Your task to perform on an android device: Open Android settings Image 0: 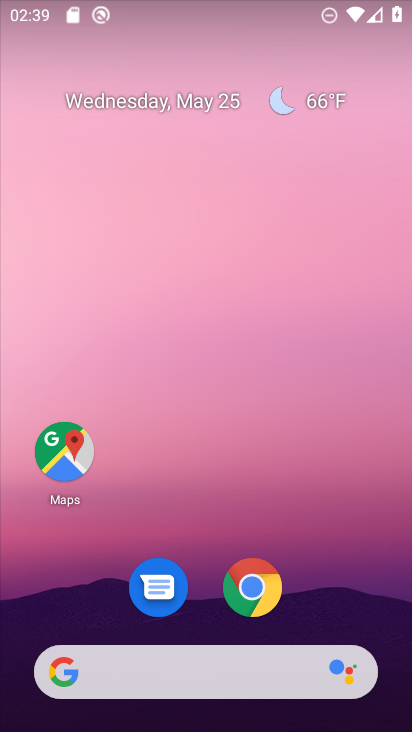
Step 0: drag from (386, 609) to (356, 224)
Your task to perform on an android device: Open Android settings Image 1: 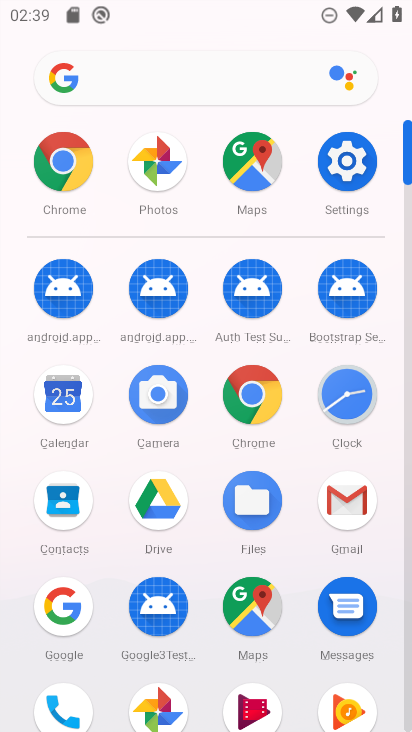
Step 1: click (354, 186)
Your task to perform on an android device: Open Android settings Image 2: 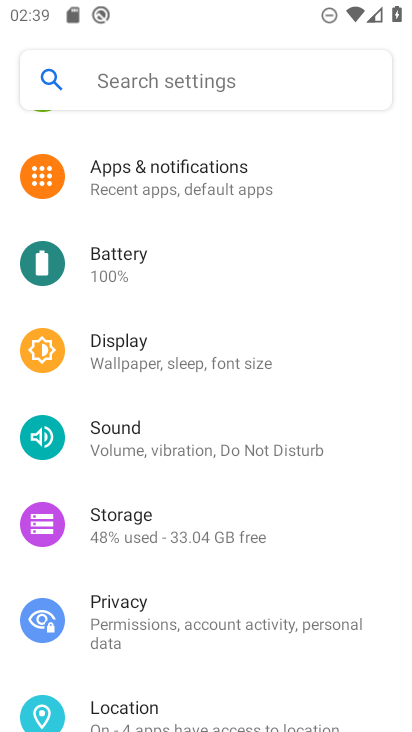
Step 2: drag from (362, 384) to (356, 275)
Your task to perform on an android device: Open Android settings Image 3: 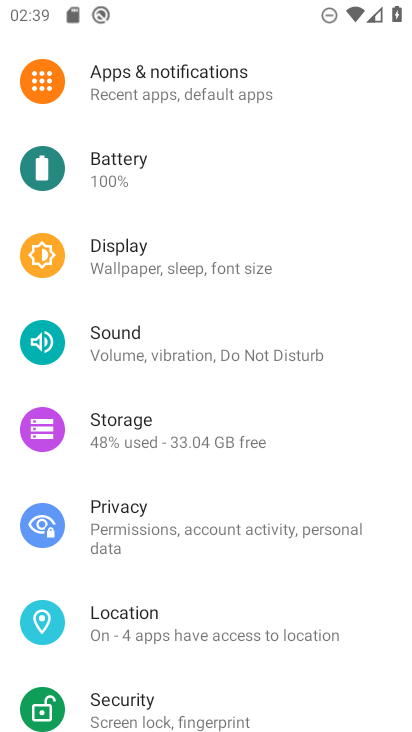
Step 3: drag from (346, 562) to (344, 423)
Your task to perform on an android device: Open Android settings Image 4: 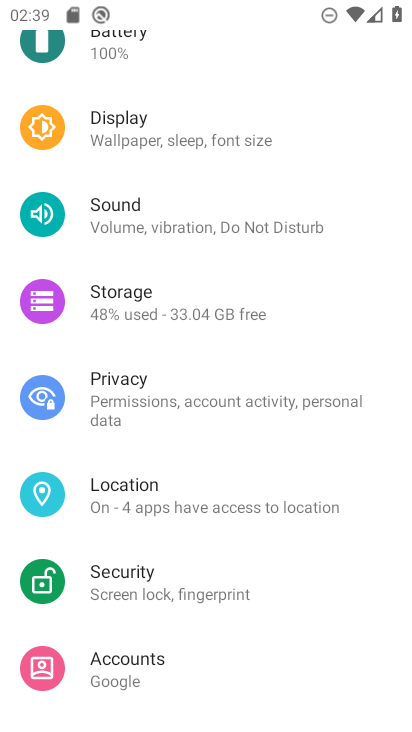
Step 4: drag from (337, 582) to (330, 464)
Your task to perform on an android device: Open Android settings Image 5: 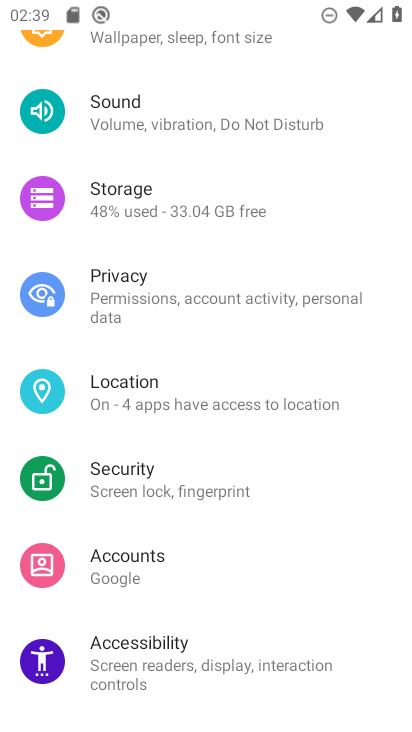
Step 5: drag from (336, 589) to (328, 498)
Your task to perform on an android device: Open Android settings Image 6: 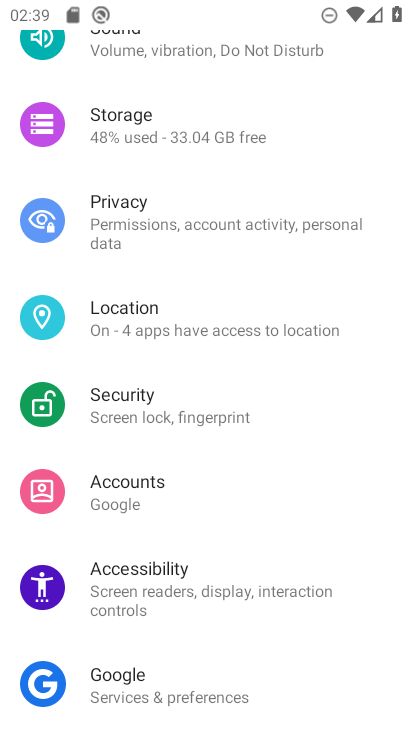
Step 6: drag from (339, 606) to (338, 525)
Your task to perform on an android device: Open Android settings Image 7: 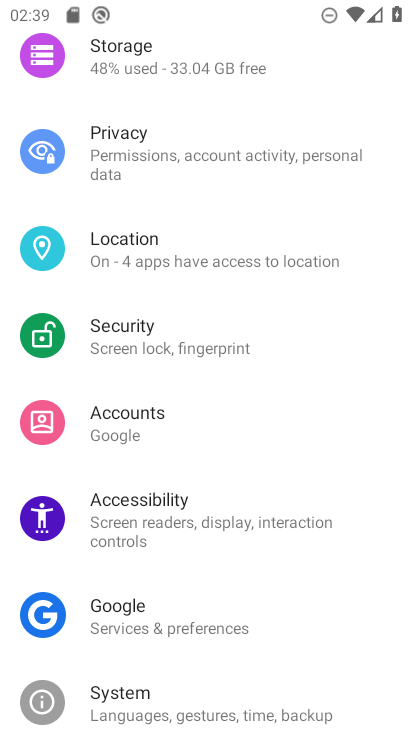
Step 7: click (340, 562)
Your task to perform on an android device: Open Android settings Image 8: 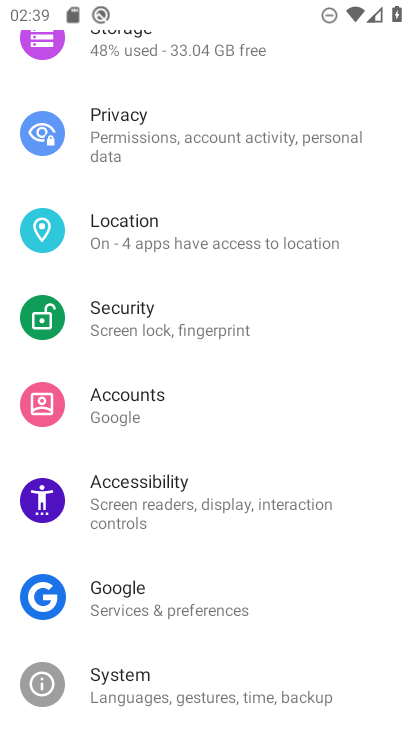
Step 8: drag from (342, 577) to (341, 491)
Your task to perform on an android device: Open Android settings Image 9: 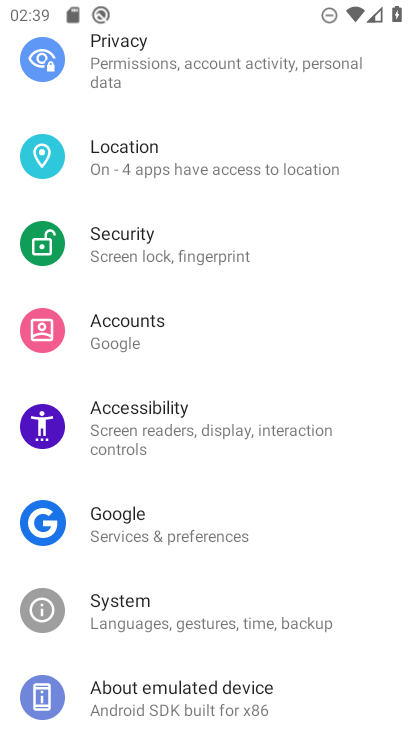
Step 9: click (328, 630)
Your task to perform on an android device: Open Android settings Image 10: 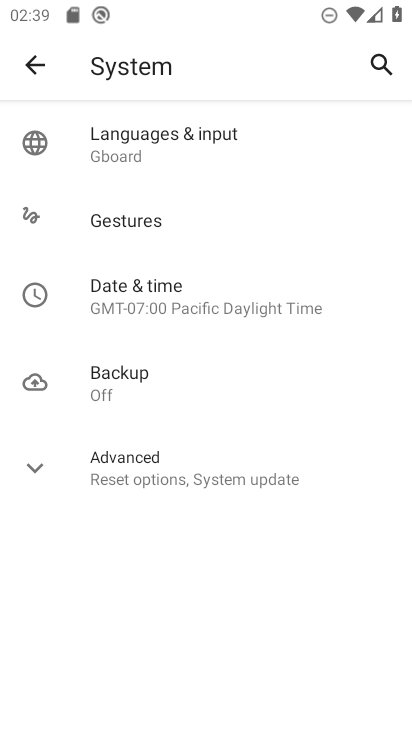
Step 10: drag from (329, 621) to (317, 521)
Your task to perform on an android device: Open Android settings Image 11: 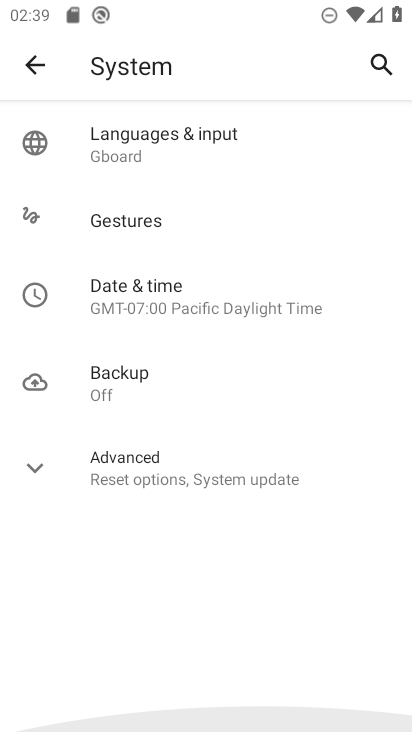
Step 11: click (290, 474)
Your task to perform on an android device: Open Android settings Image 12: 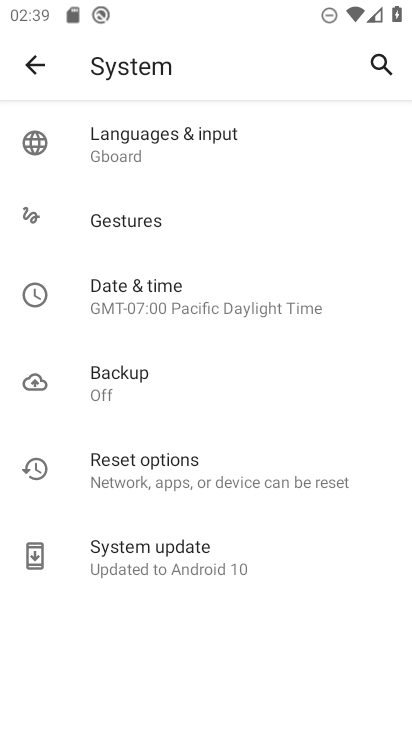
Step 12: task complete